Your task to perform on an android device: open sync settings in chrome Image 0: 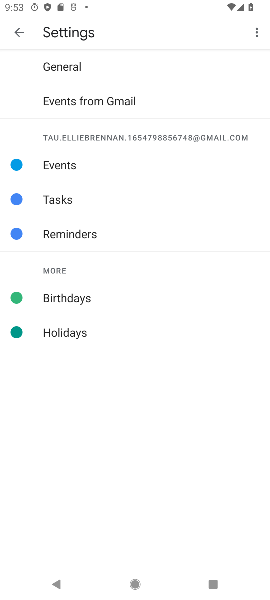
Step 0: press home button
Your task to perform on an android device: open sync settings in chrome Image 1: 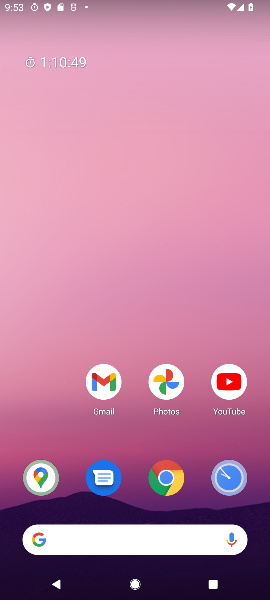
Step 1: click (169, 484)
Your task to perform on an android device: open sync settings in chrome Image 2: 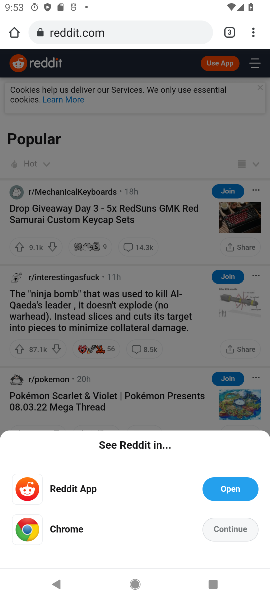
Step 2: drag from (251, 26) to (180, 434)
Your task to perform on an android device: open sync settings in chrome Image 3: 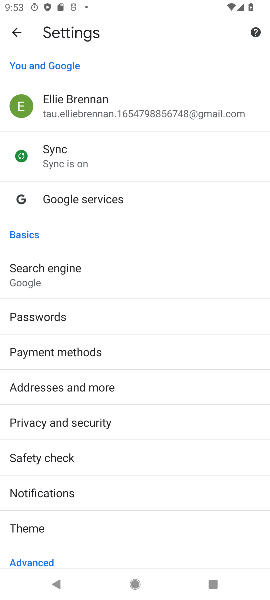
Step 3: click (40, 151)
Your task to perform on an android device: open sync settings in chrome Image 4: 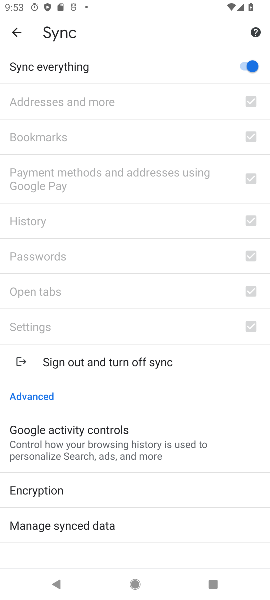
Step 4: task complete